Your task to perform on an android device: Open internet settings Image 0: 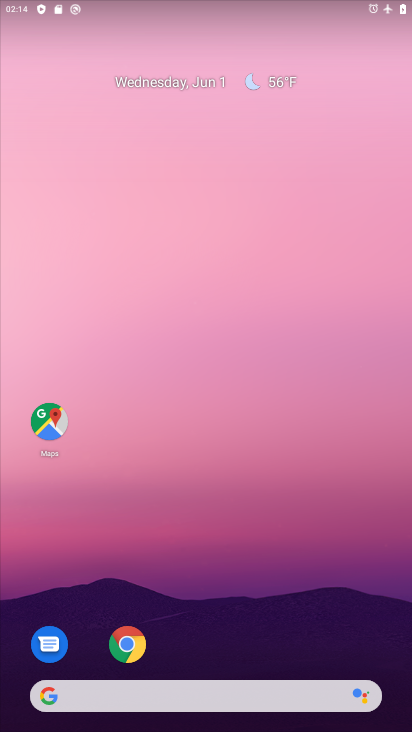
Step 0: drag from (194, 653) to (157, 302)
Your task to perform on an android device: Open internet settings Image 1: 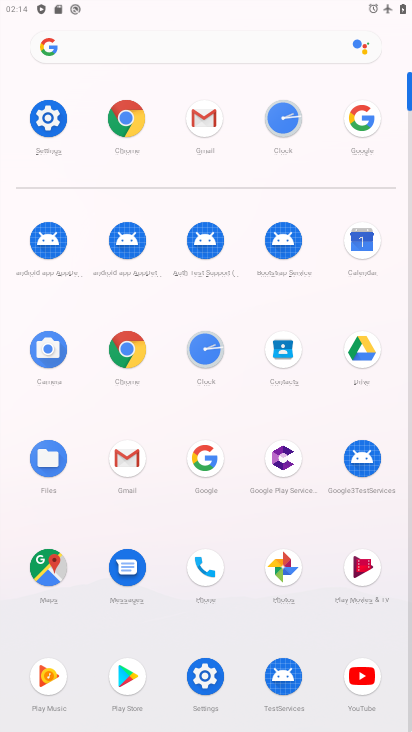
Step 1: click (55, 115)
Your task to perform on an android device: Open internet settings Image 2: 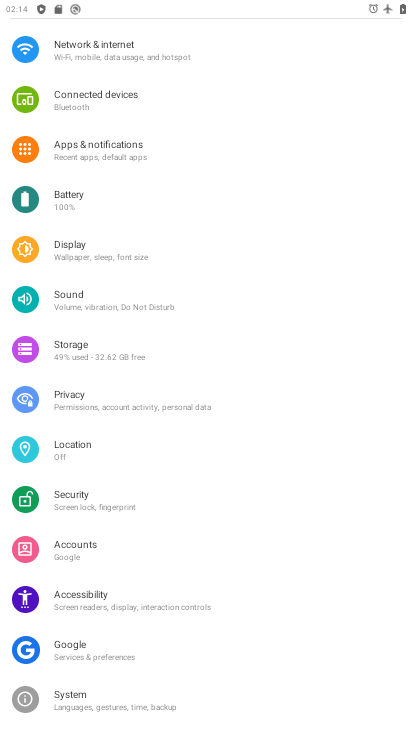
Step 2: click (62, 43)
Your task to perform on an android device: Open internet settings Image 3: 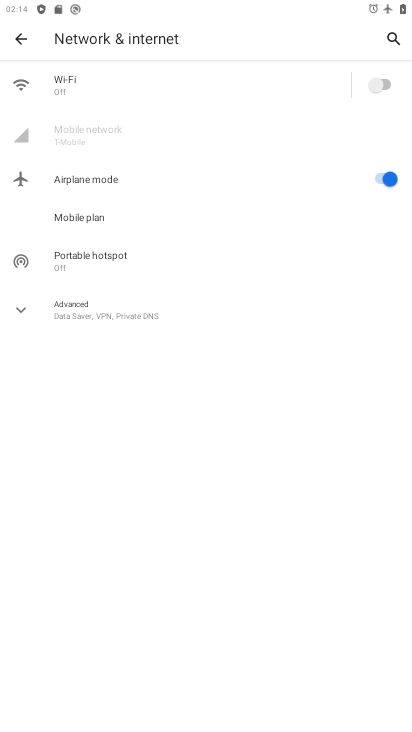
Step 3: click (114, 312)
Your task to perform on an android device: Open internet settings Image 4: 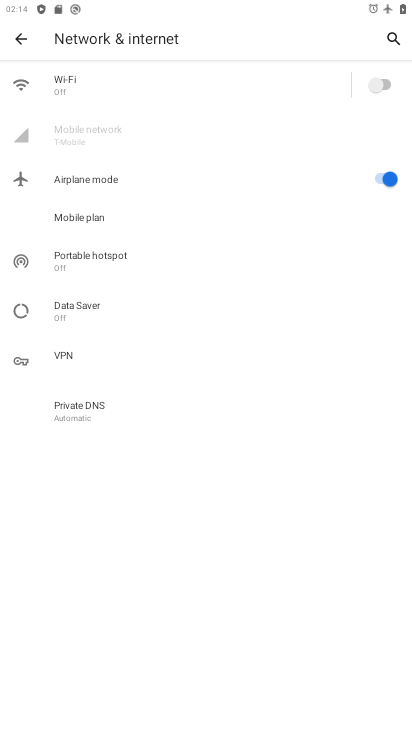
Step 4: task complete